Your task to perform on an android device: Search for Italian restaurants on Maps Image 0: 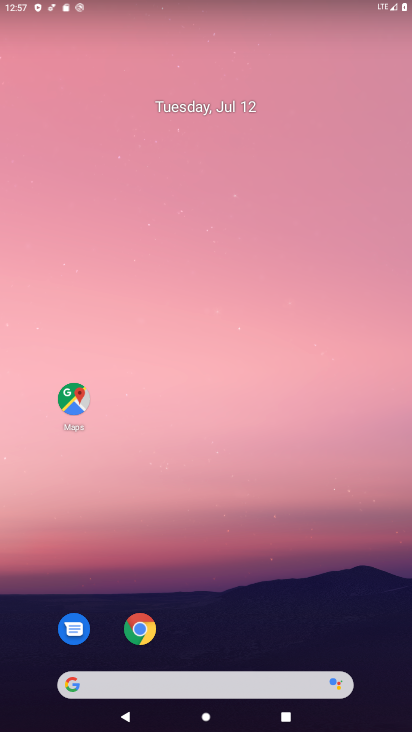
Step 0: drag from (184, 361) to (178, 6)
Your task to perform on an android device: Search for Italian restaurants on Maps Image 1: 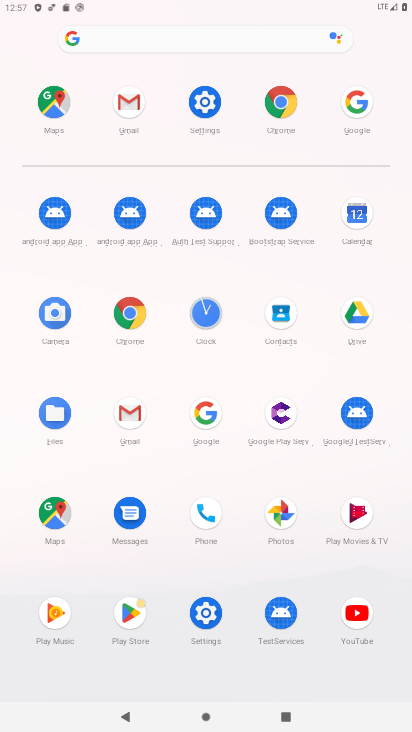
Step 1: click (63, 515)
Your task to perform on an android device: Search for Italian restaurants on Maps Image 2: 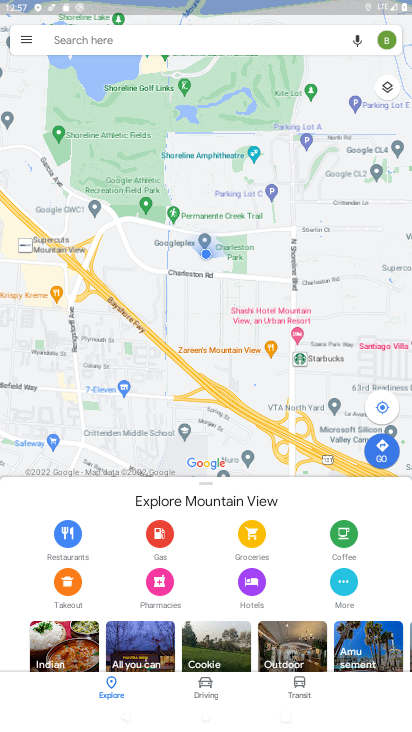
Step 2: click (79, 44)
Your task to perform on an android device: Search for Italian restaurants on Maps Image 3: 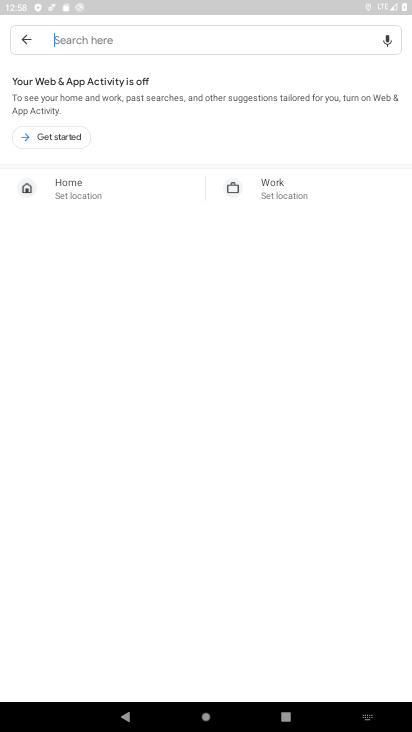
Step 3: type "italian restaurant"
Your task to perform on an android device: Search for Italian restaurants on Maps Image 4: 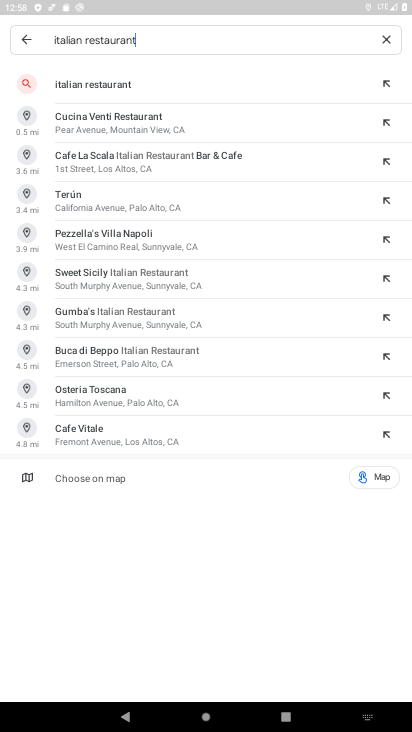
Step 4: click (122, 84)
Your task to perform on an android device: Search for Italian restaurants on Maps Image 5: 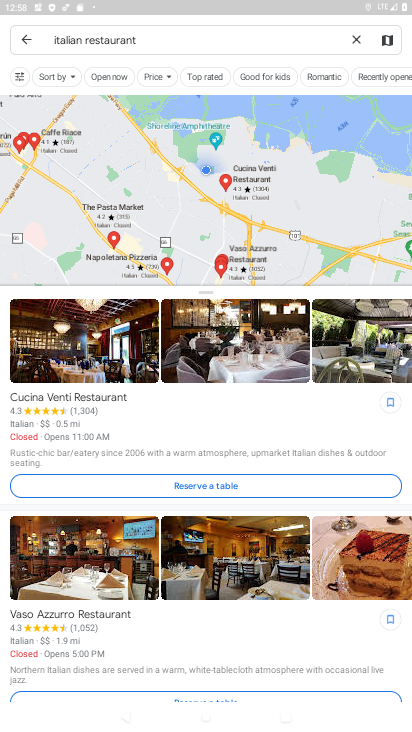
Step 5: task complete